Your task to perform on an android device: open the mobile data screen to see how much data has been used Image 0: 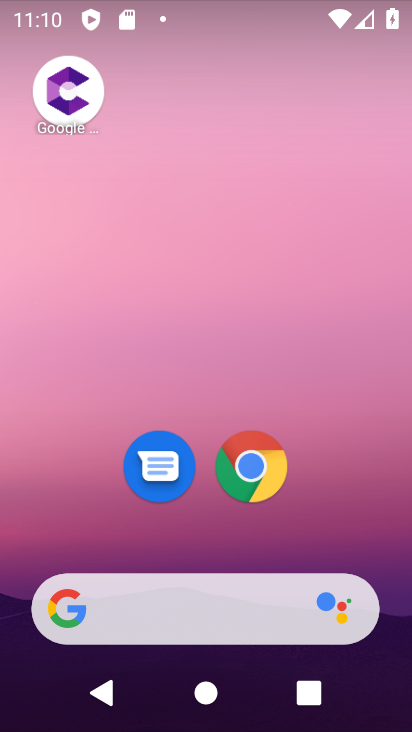
Step 0: drag from (88, 540) to (183, 55)
Your task to perform on an android device: open the mobile data screen to see how much data has been used Image 1: 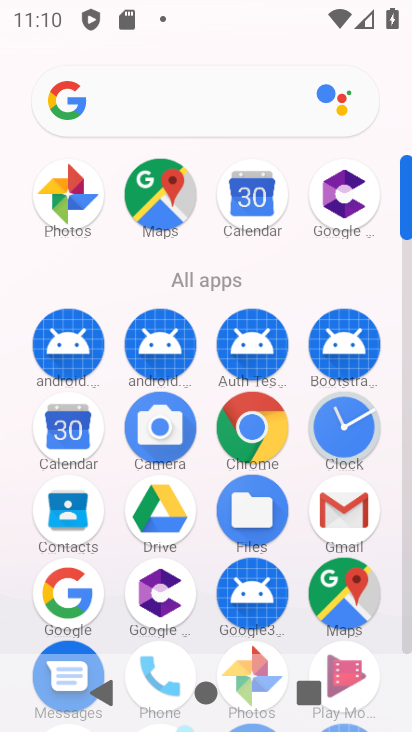
Step 1: drag from (185, 595) to (262, 345)
Your task to perform on an android device: open the mobile data screen to see how much data has been used Image 2: 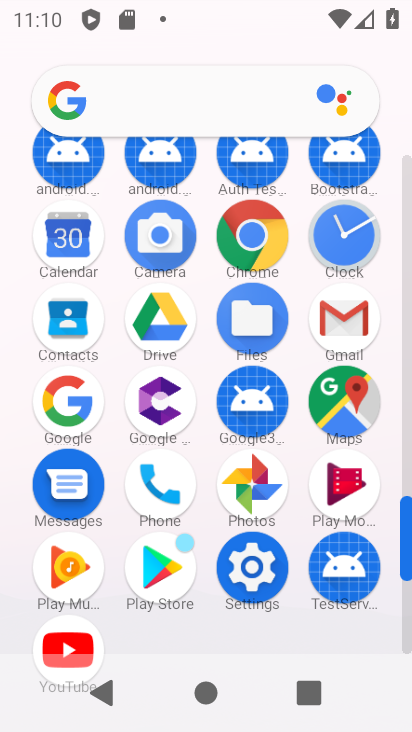
Step 2: click (255, 569)
Your task to perform on an android device: open the mobile data screen to see how much data has been used Image 3: 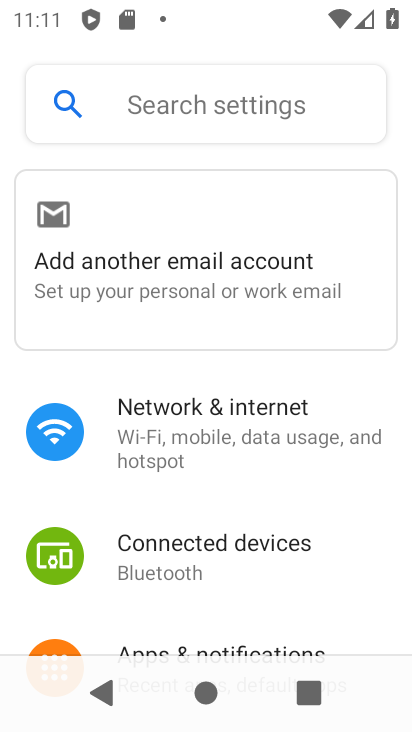
Step 3: click (224, 455)
Your task to perform on an android device: open the mobile data screen to see how much data has been used Image 4: 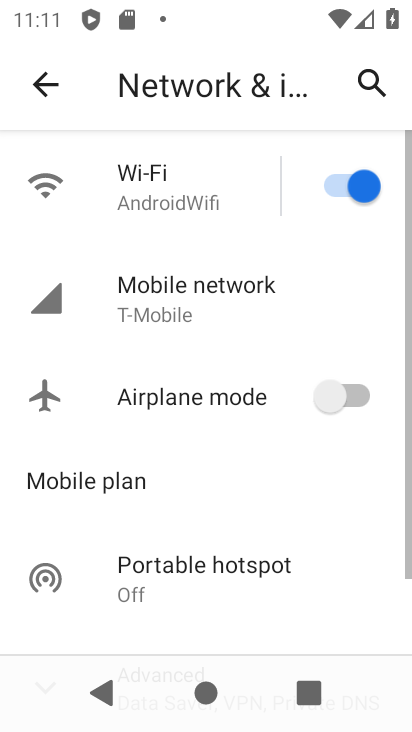
Step 4: click (269, 298)
Your task to perform on an android device: open the mobile data screen to see how much data has been used Image 5: 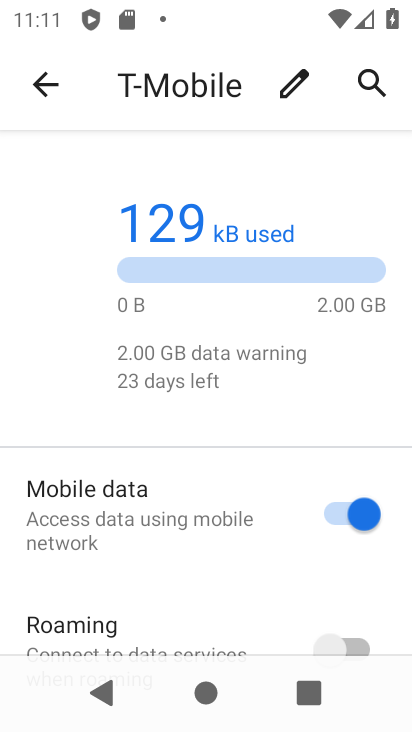
Step 5: task complete